Your task to perform on an android device: Open sound settings Image 0: 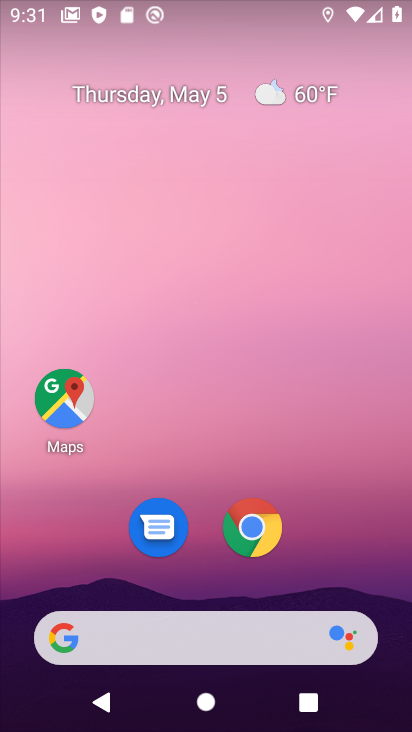
Step 0: press home button
Your task to perform on an android device: Open sound settings Image 1: 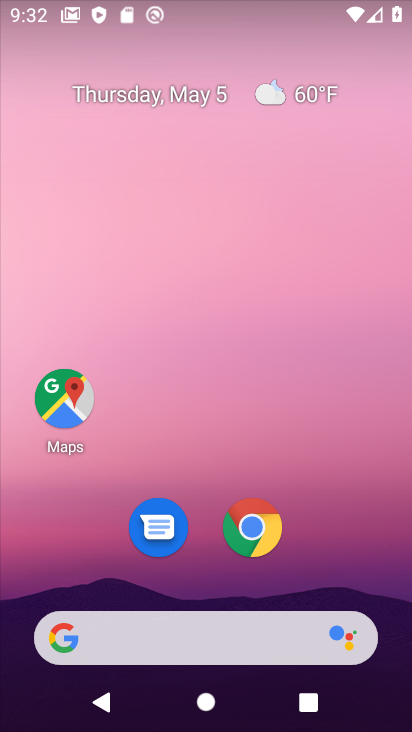
Step 1: drag from (210, 579) to (212, 57)
Your task to perform on an android device: Open sound settings Image 2: 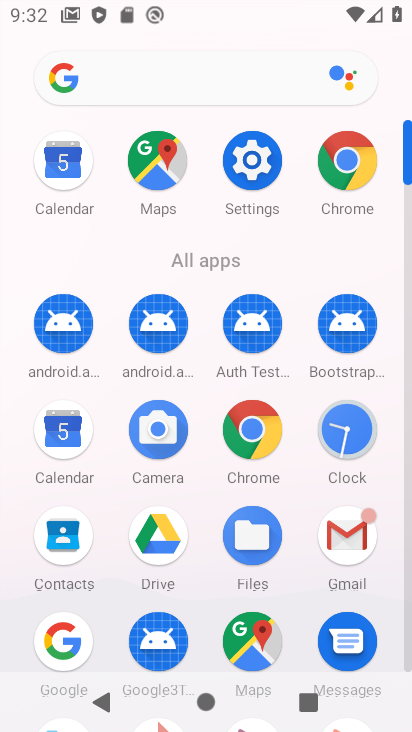
Step 2: click (249, 152)
Your task to perform on an android device: Open sound settings Image 3: 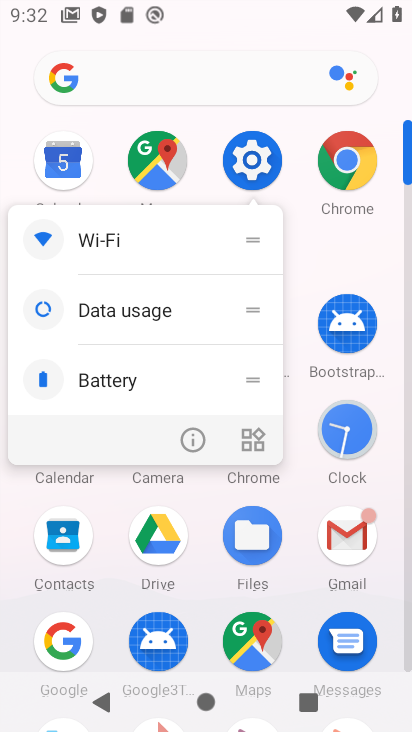
Step 3: click (249, 150)
Your task to perform on an android device: Open sound settings Image 4: 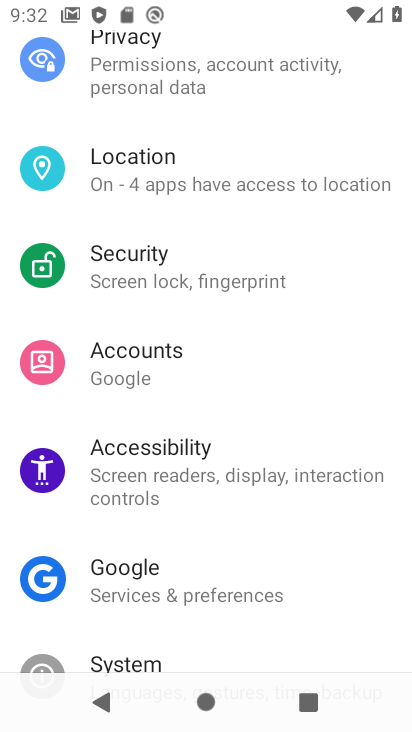
Step 4: drag from (182, 116) to (199, 652)
Your task to perform on an android device: Open sound settings Image 5: 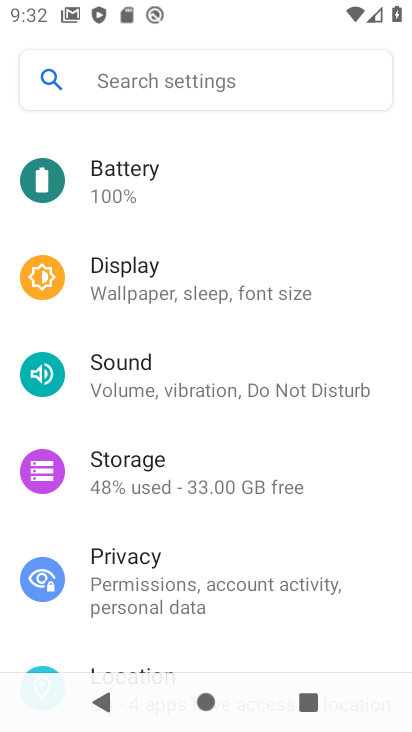
Step 5: click (159, 364)
Your task to perform on an android device: Open sound settings Image 6: 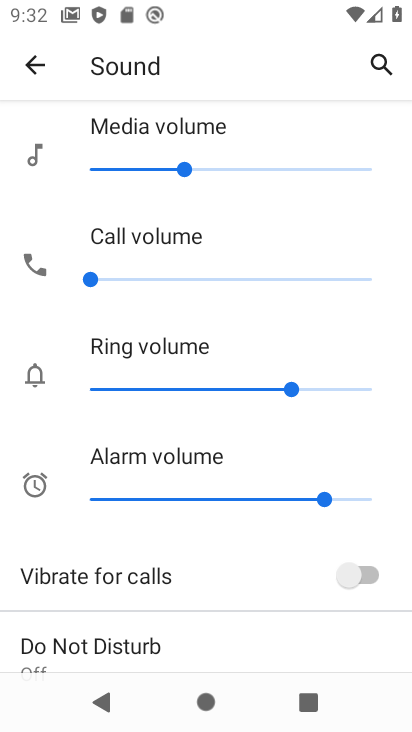
Step 6: drag from (218, 632) to (248, 89)
Your task to perform on an android device: Open sound settings Image 7: 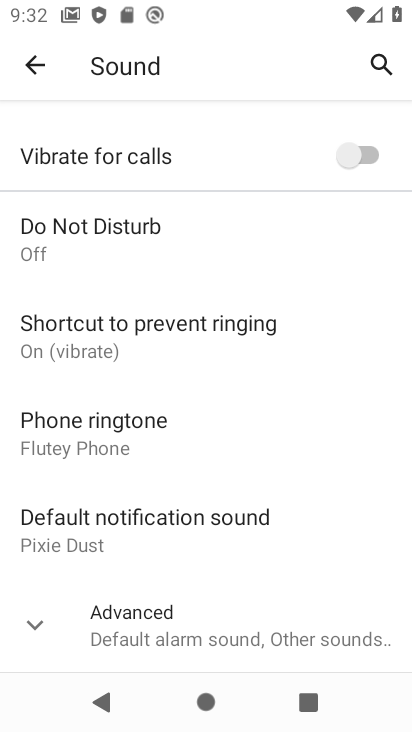
Step 7: click (38, 622)
Your task to perform on an android device: Open sound settings Image 8: 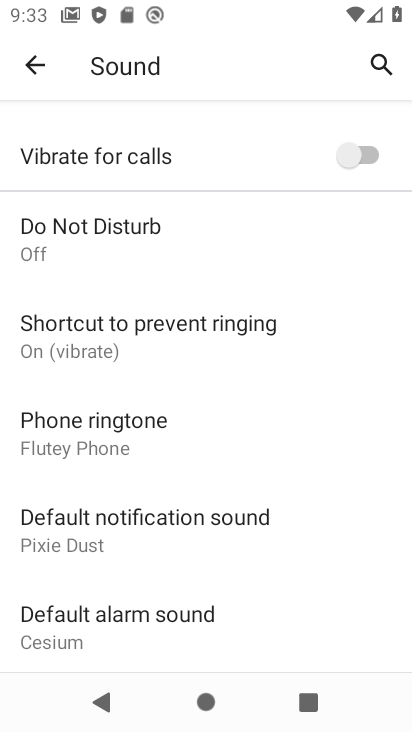
Step 8: task complete